Your task to perform on an android device: Show me popular videos on Youtube Image 0: 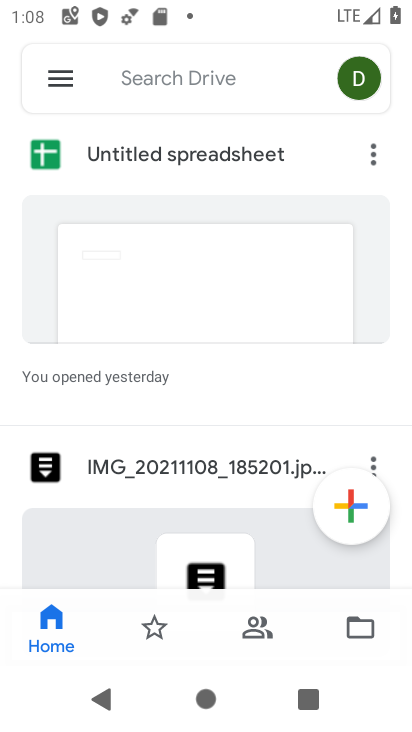
Step 0: drag from (325, 539) to (296, 202)
Your task to perform on an android device: Show me popular videos on Youtube Image 1: 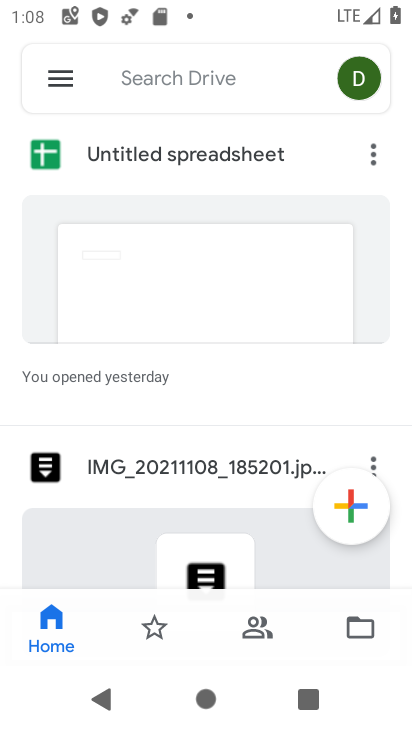
Step 1: press home button
Your task to perform on an android device: Show me popular videos on Youtube Image 2: 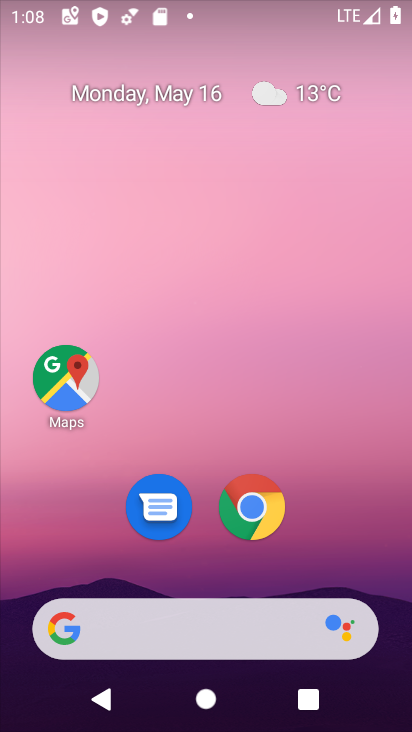
Step 2: drag from (320, 500) to (248, 132)
Your task to perform on an android device: Show me popular videos on Youtube Image 3: 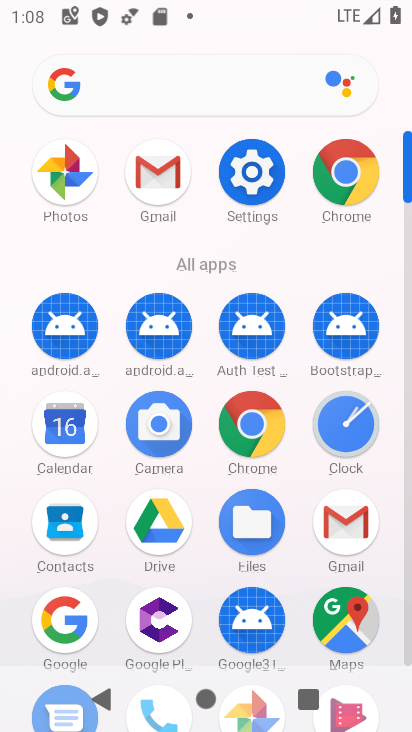
Step 3: drag from (274, 629) to (247, 117)
Your task to perform on an android device: Show me popular videos on Youtube Image 4: 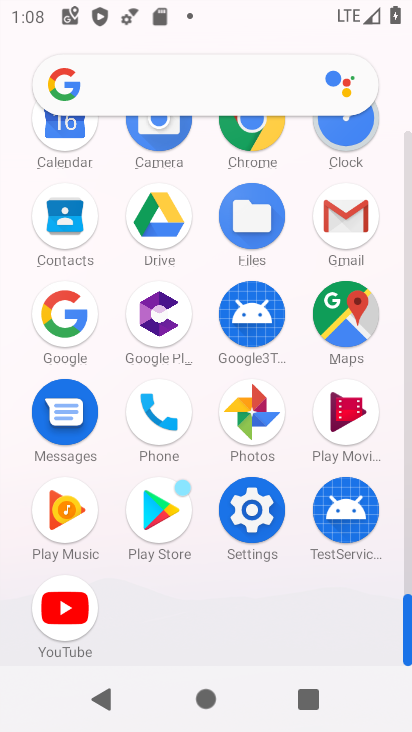
Step 4: click (62, 623)
Your task to perform on an android device: Show me popular videos on Youtube Image 5: 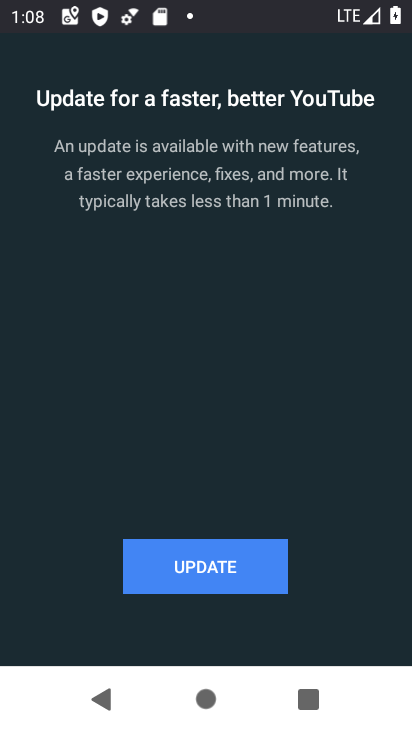
Step 5: click (230, 562)
Your task to perform on an android device: Show me popular videos on Youtube Image 6: 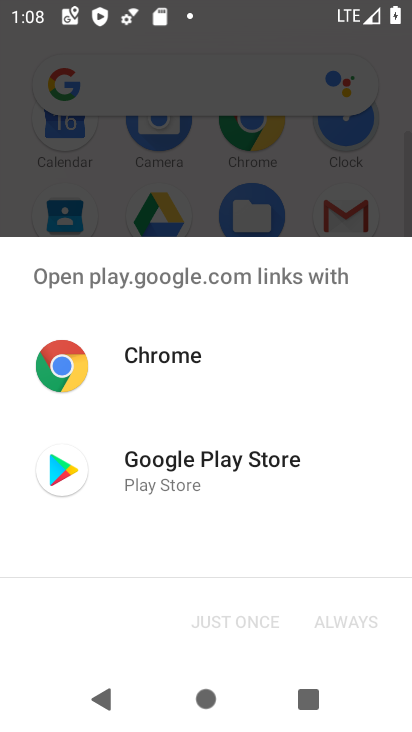
Step 6: click (205, 464)
Your task to perform on an android device: Show me popular videos on Youtube Image 7: 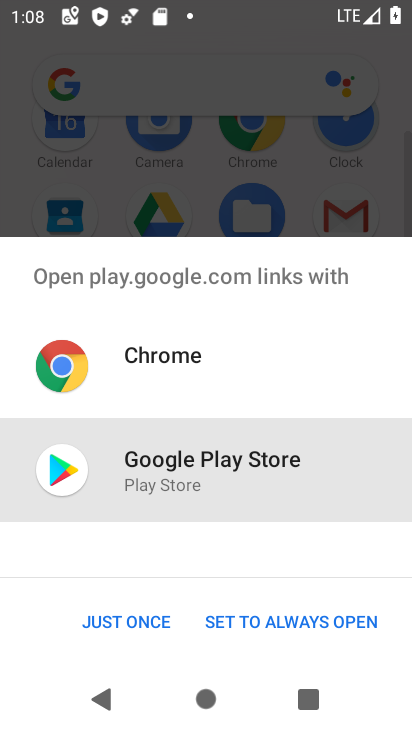
Step 7: click (161, 619)
Your task to perform on an android device: Show me popular videos on Youtube Image 8: 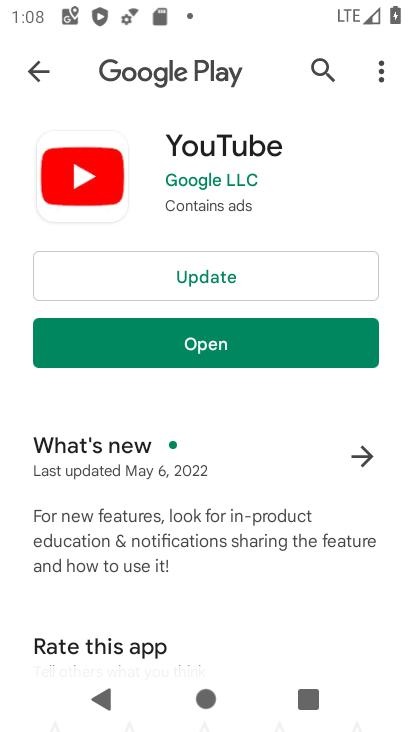
Step 8: click (225, 279)
Your task to perform on an android device: Show me popular videos on Youtube Image 9: 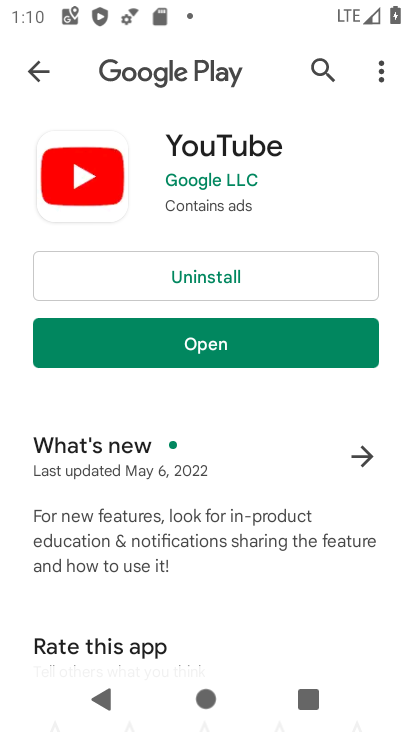
Step 9: click (242, 336)
Your task to perform on an android device: Show me popular videos on Youtube Image 10: 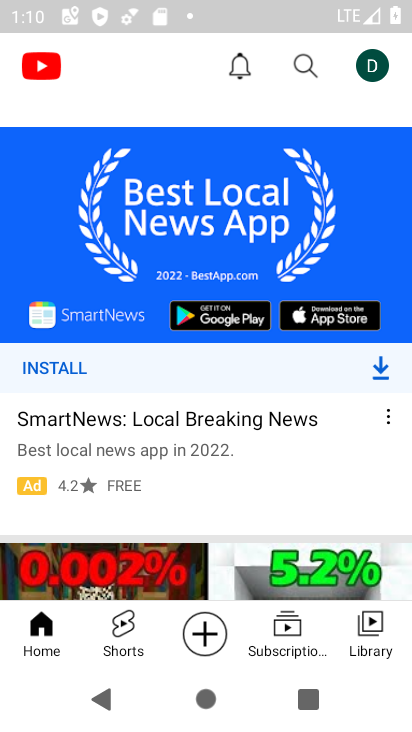
Step 10: click (36, 630)
Your task to perform on an android device: Show me popular videos on Youtube Image 11: 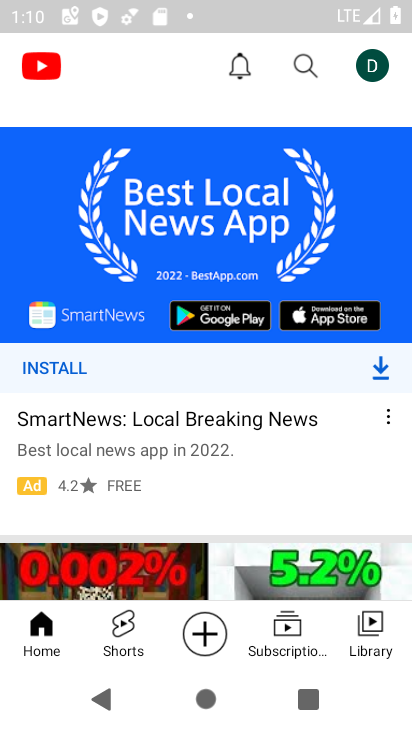
Step 11: drag from (172, 149) to (116, 662)
Your task to perform on an android device: Show me popular videos on Youtube Image 12: 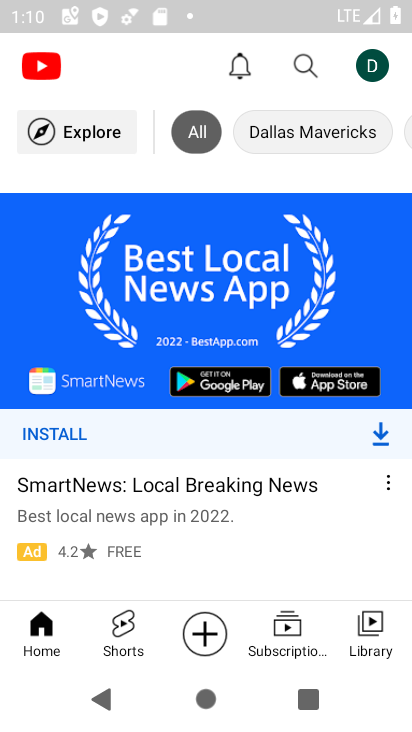
Step 12: click (80, 131)
Your task to perform on an android device: Show me popular videos on Youtube Image 13: 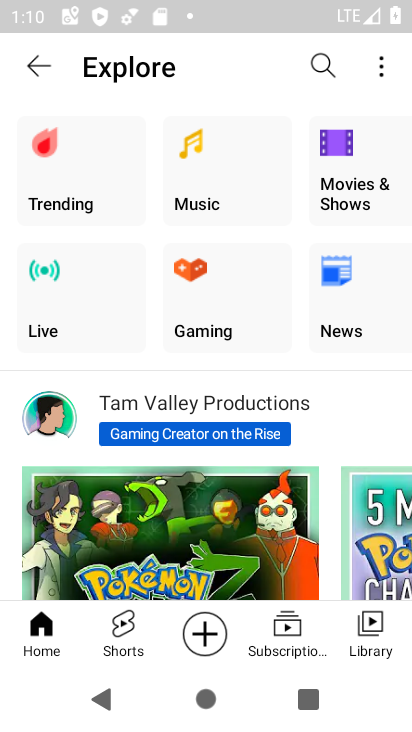
Step 13: click (59, 203)
Your task to perform on an android device: Show me popular videos on Youtube Image 14: 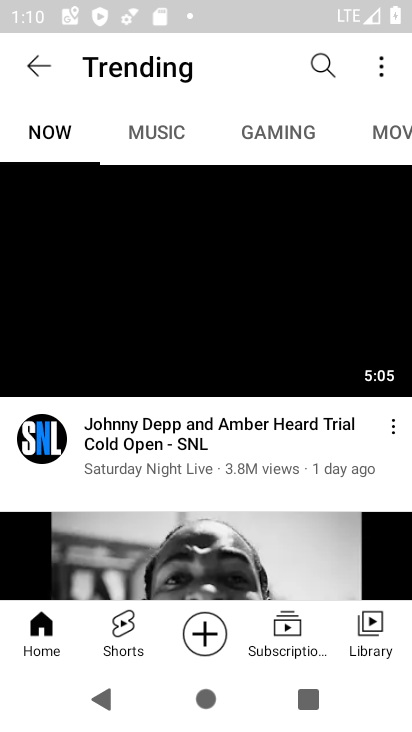
Step 14: task complete